Your task to perform on an android device: change alarm snooze length Image 0: 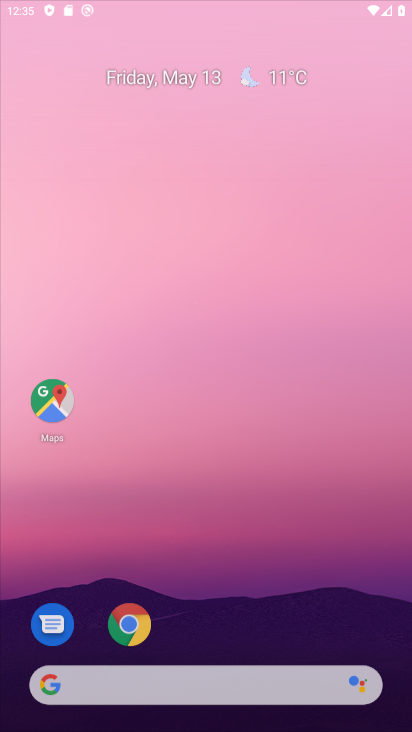
Step 0: click (235, 410)
Your task to perform on an android device: change alarm snooze length Image 1: 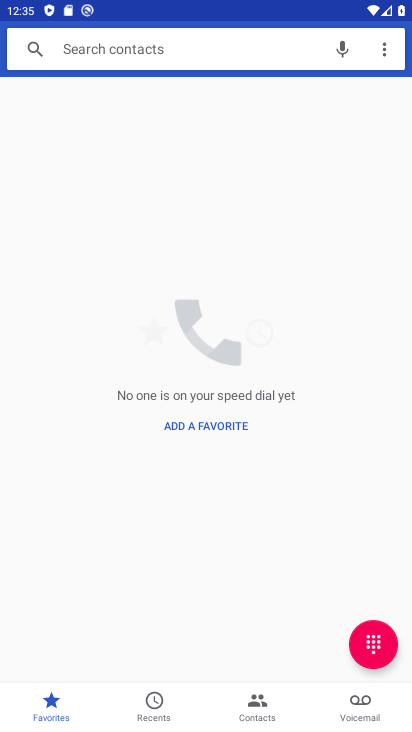
Step 1: press home button
Your task to perform on an android device: change alarm snooze length Image 2: 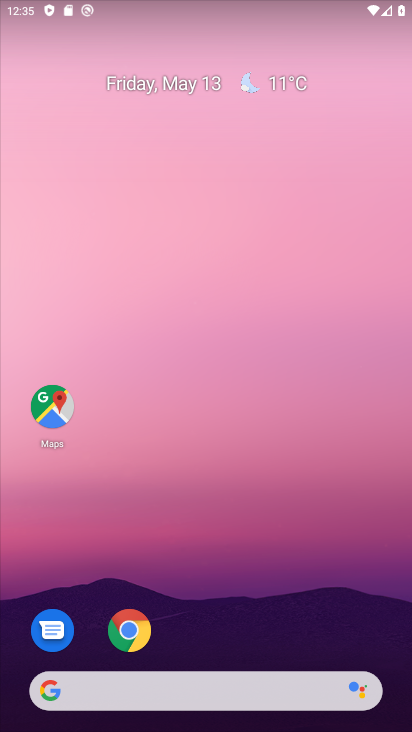
Step 2: drag from (296, 657) to (267, 10)
Your task to perform on an android device: change alarm snooze length Image 3: 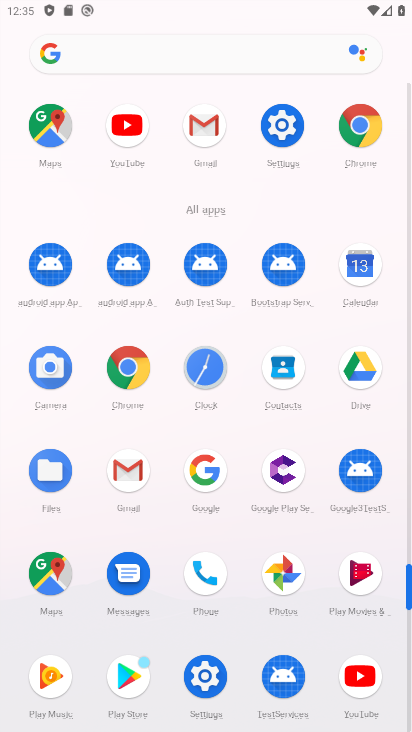
Step 3: click (194, 381)
Your task to perform on an android device: change alarm snooze length Image 4: 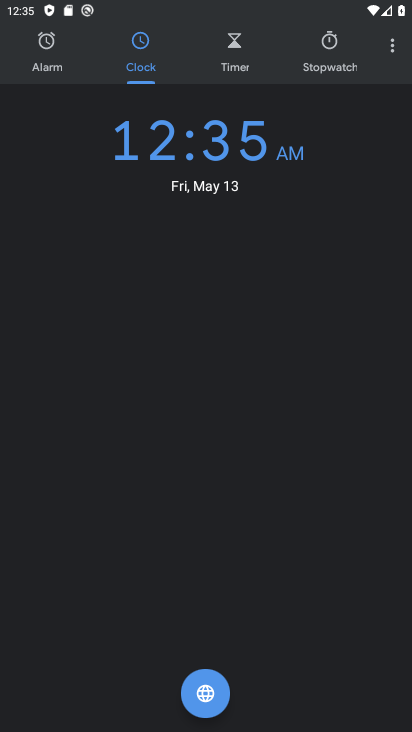
Step 4: click (393, 50)
Your task to perform on an android device: change alarm snooze length Image 5: 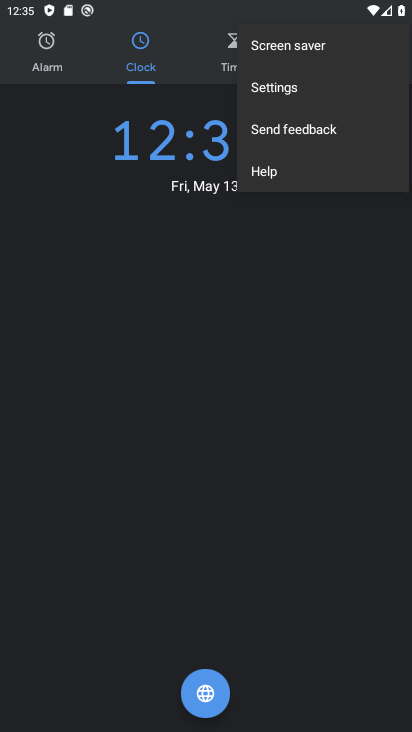
Step 5: click (267, 94)
Your task to perform on an android device: change alarm snooze length Image 6: 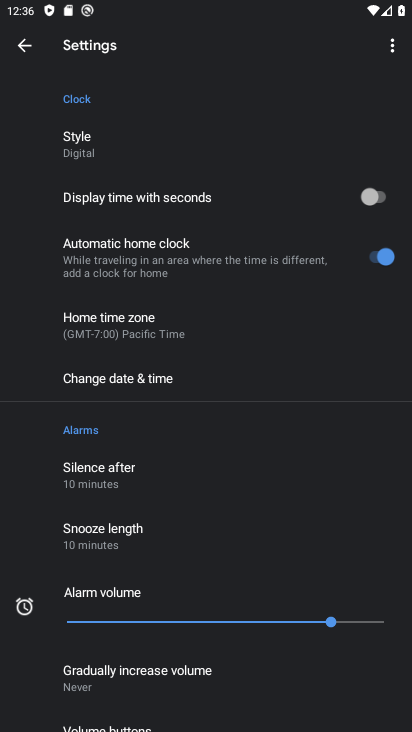
Step 6: click (89, 536)
Your task to perform on an android device: change alarm snooze length Image 7: 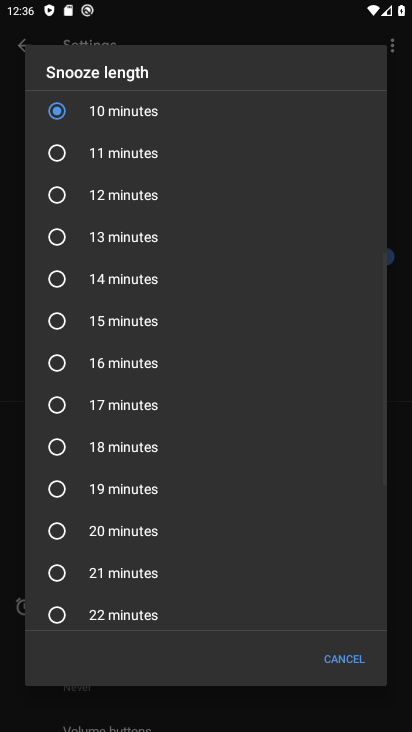
Step 7: click (52, 204)
Your task to perform on an android device: change alarm snooze length Image 8: 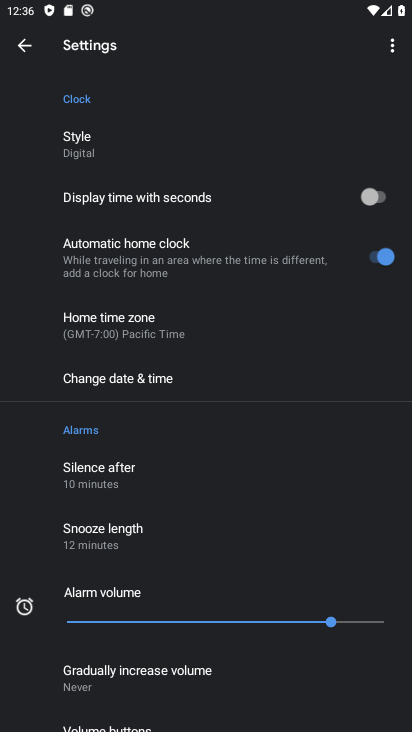
Step 8: task complete